Your task to perform on an android device: Open Google Chrome Image 0: 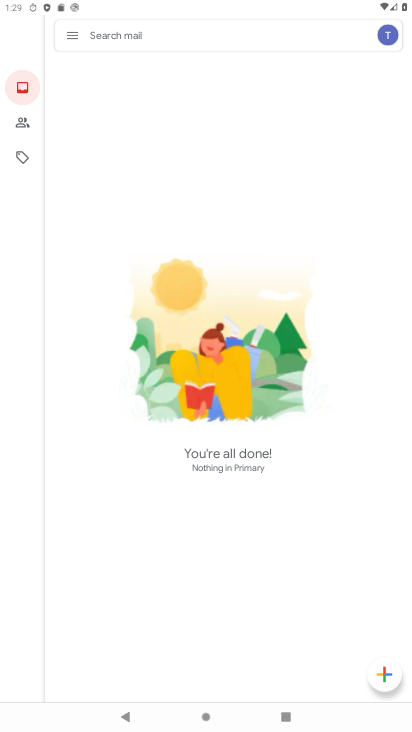
Step 0: press home button
Your task to perform on an android device: Open Google Chrome Image 1: 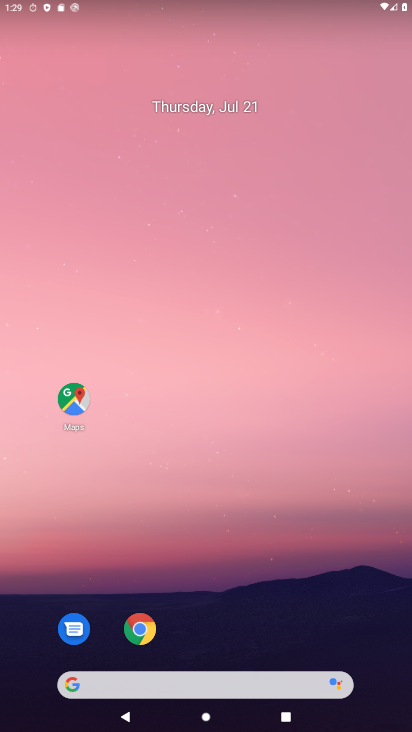
Step 1: click (136, 634)
Your task to perform on an android device: Open Google Chrome Image 2: 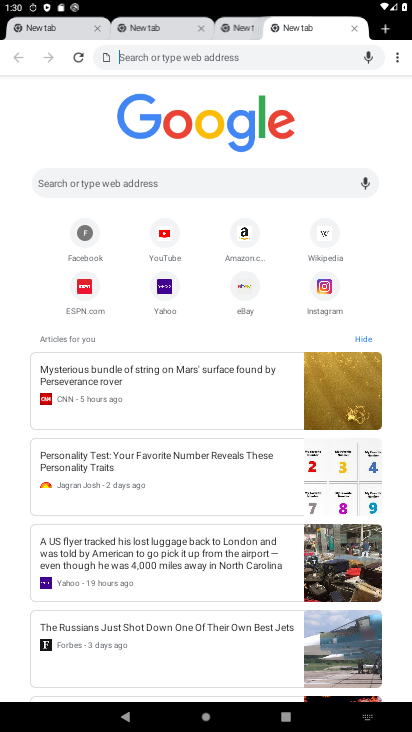
Step 2: task complete